Your task to perform on an android device: Go to Wikipedia Image 0: 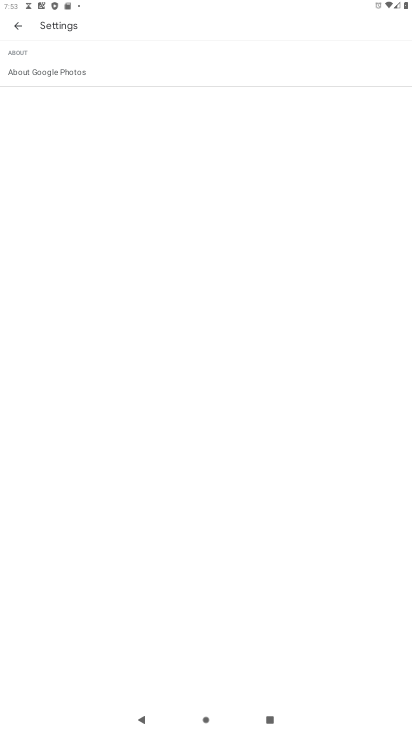
Step 0: press home button
Your task to perform on an android device: Go to Wikipedia Image 1: 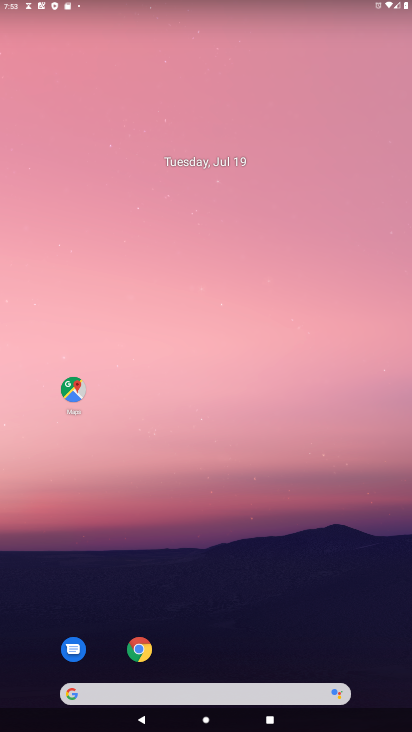
Step 1: drag from (193, 692) to (203, 180)
Your task to perform on an android device: Go to Wikipedia Image 2: 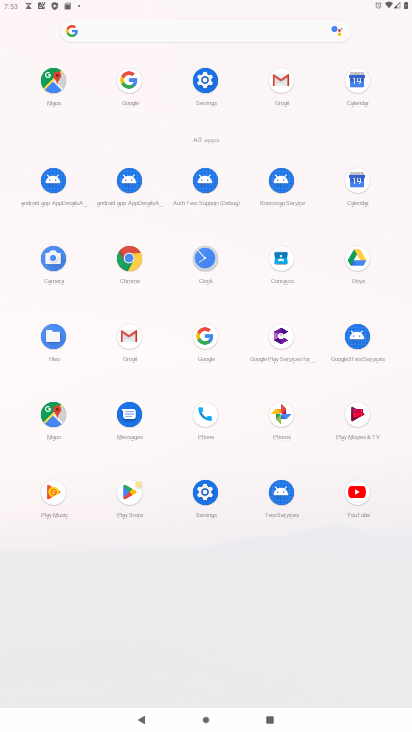
Step 2: click (203, 336)
Your task to perform on an android device: Go to Wikipedia Image 3: 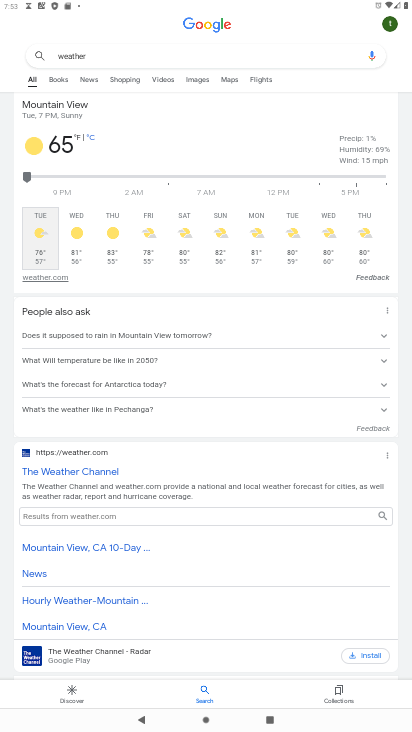
Step 3: click (163, 54)
Your task to perform on an android device: Go to Wikipedia Image 4: 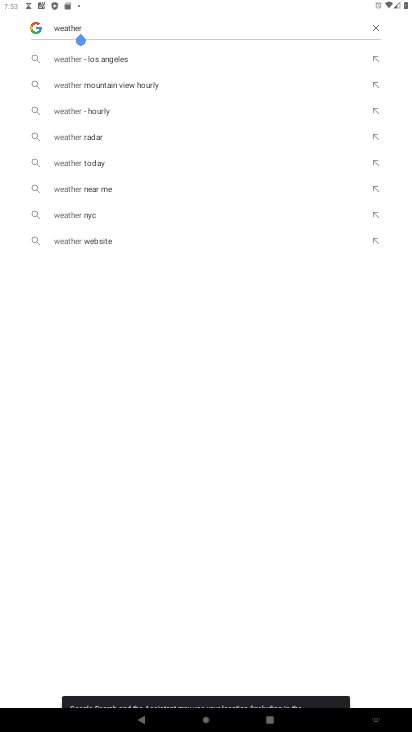
Step 4: click (377, 26)
Your task to perform on an android device: Go to Wikipedia Image 5: 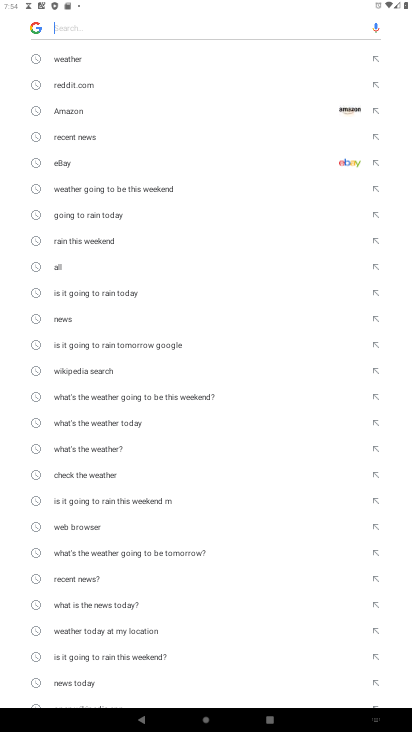
Step 5: type "Wikipedia"
Your task to perform on an android device: Go to Wikipedia Image 6: 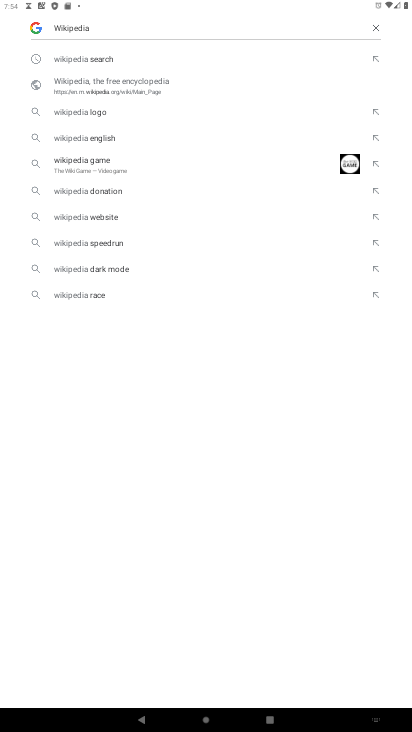
Step 6: click (77, 61)
Your task to perform on an android device: Go to Wikipedia Image 7: 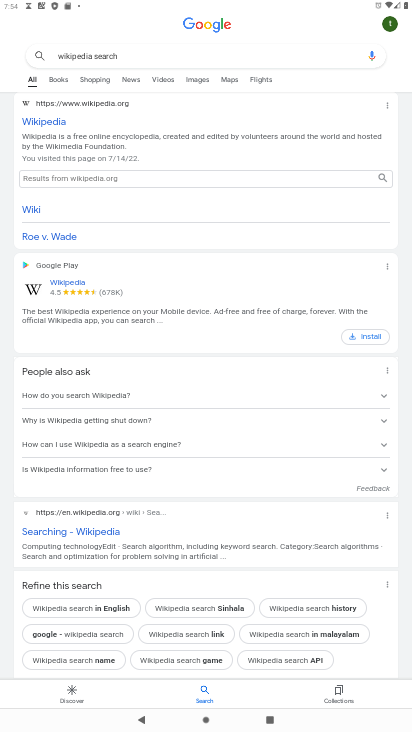
Step 7: click (41, 122)
Your task to perform on an android device: Go to Wikipedia Image 8: 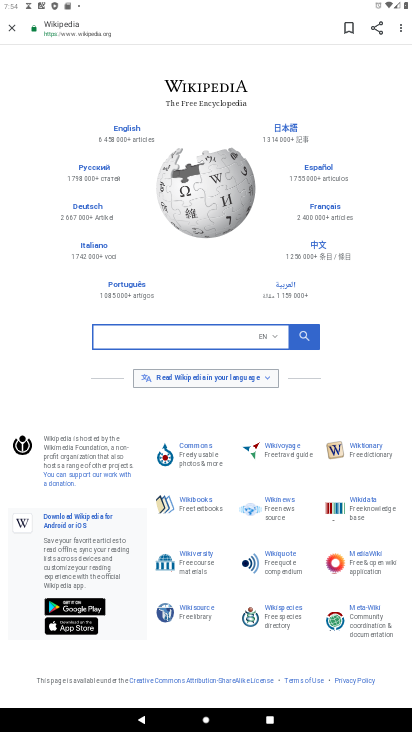
Step 8: task complete